Your task to perform on an android device: Open Chrome and go to the settings page Image 0: 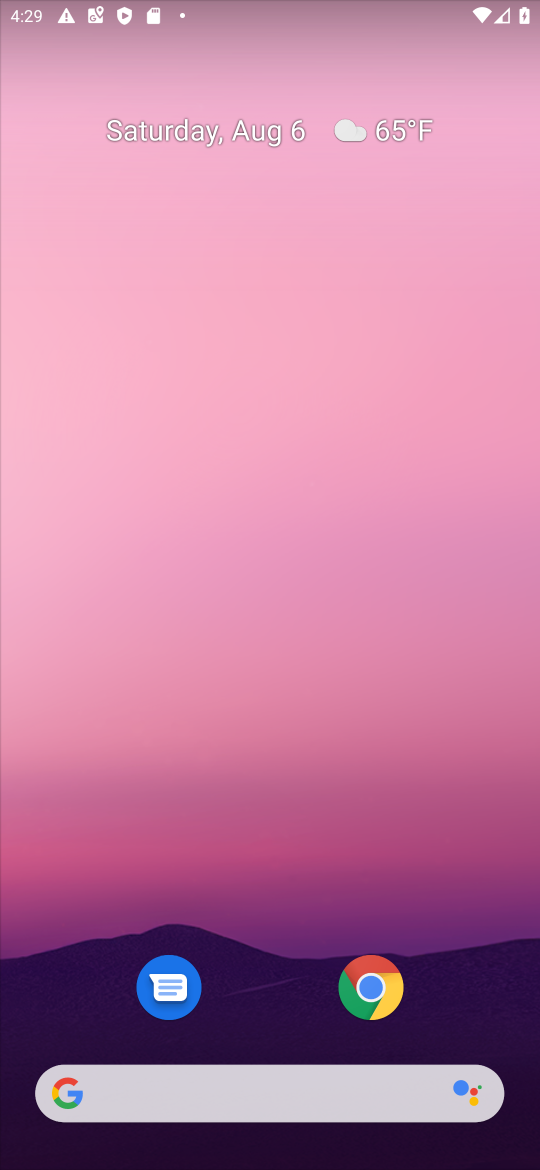
Step 0: click (360, 995)
Your task to perform on an android device: Open Chrome and go to the settings page Image 1: 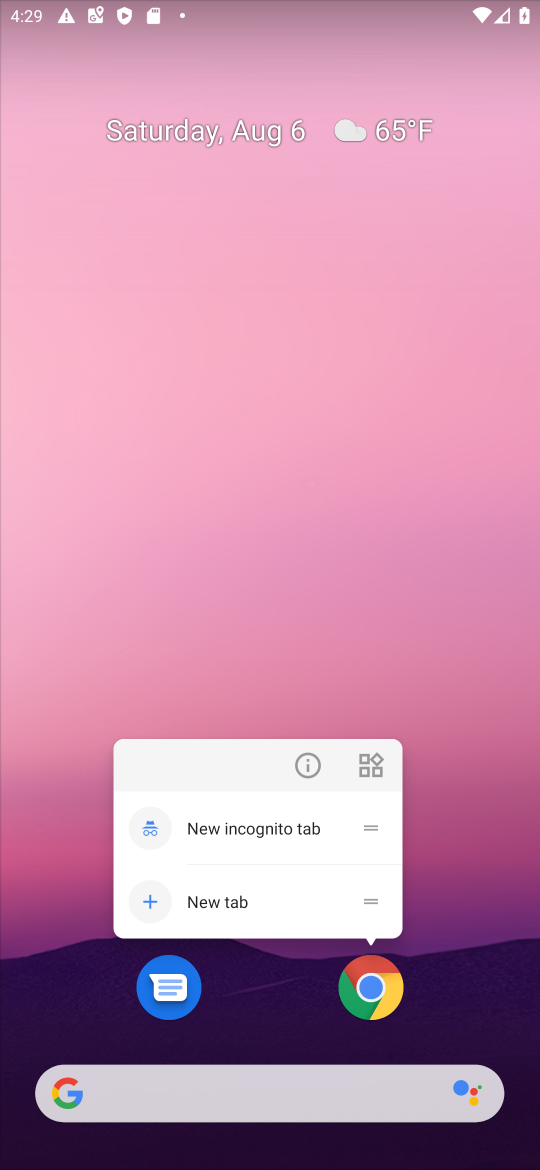
Step 1: click (376, 969)
Your task to perform on an android device: Open Chrome and go to the settings page Image 2: 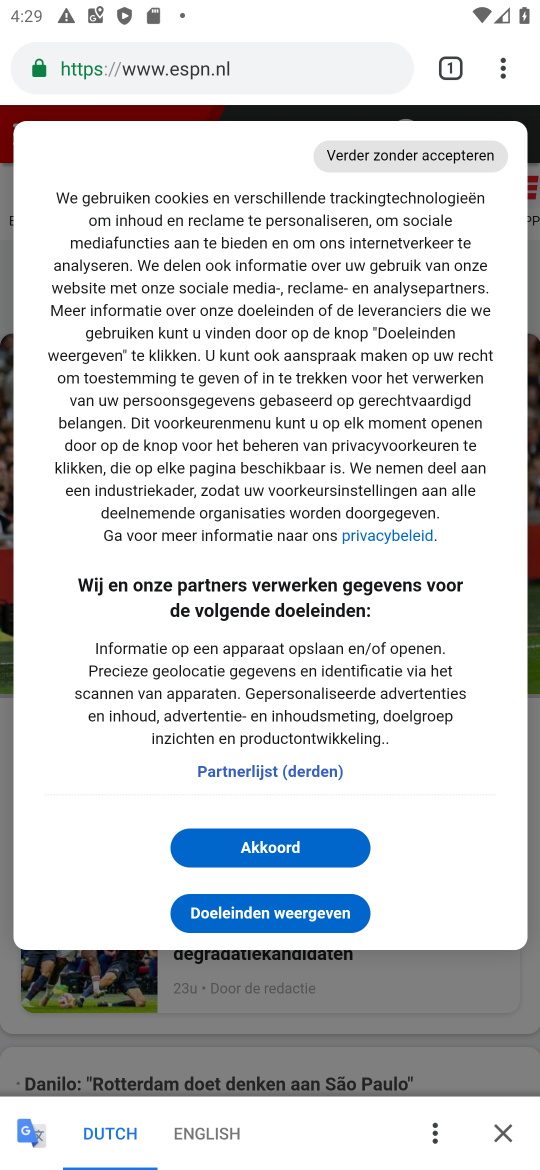
Step 2: click (503, 80)
Your task to perform on an android device: Open Chrome and go to the settings page Image 3: 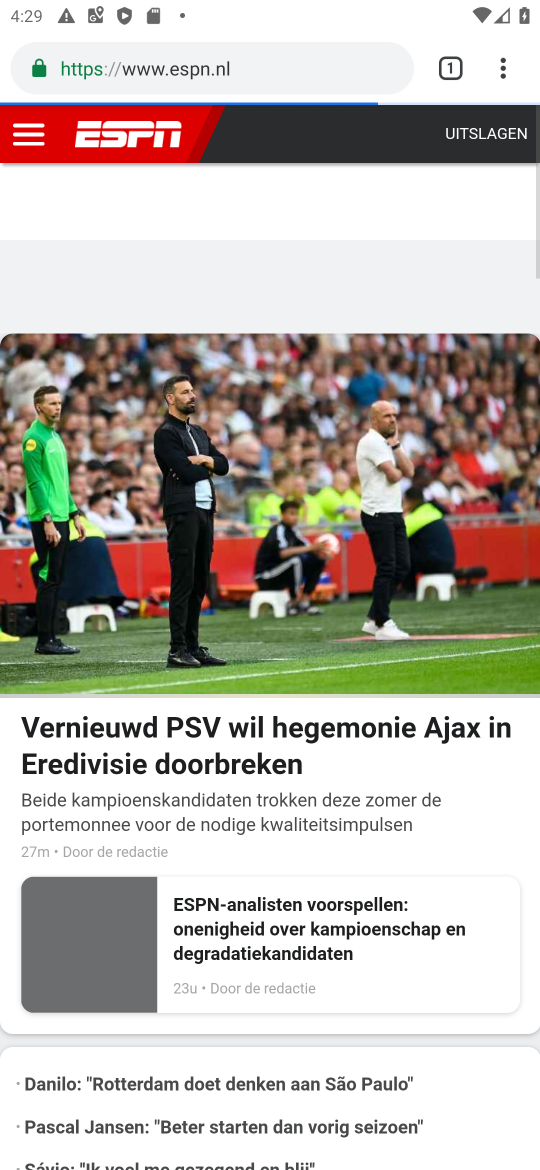
Step 3: click (503, 69)
Your task to perform on an android device: Open Chrome and go to the settings page Image 4: 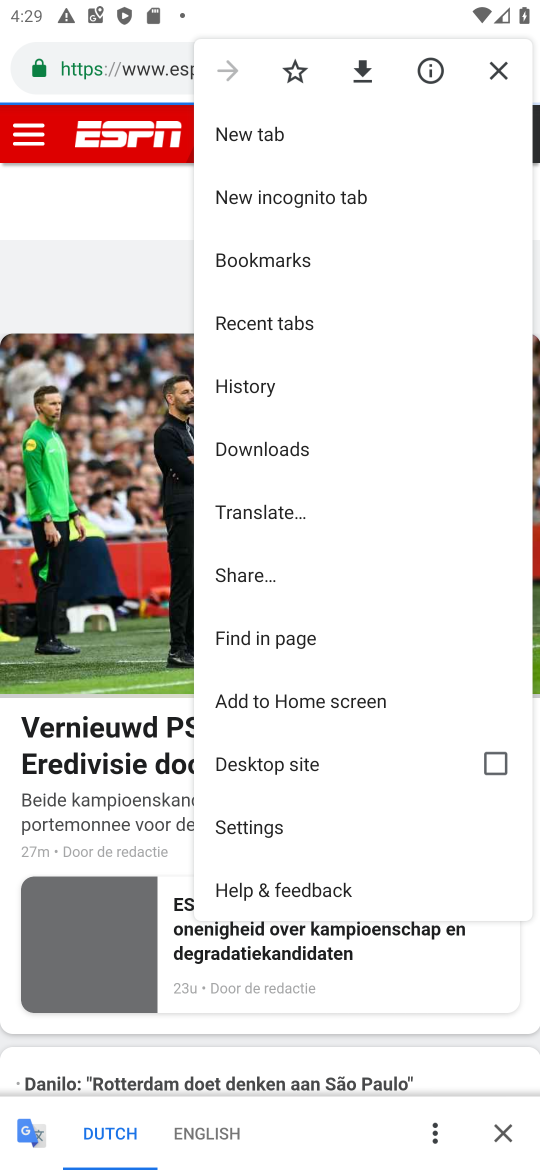
Step 4: click (272, 833)
Your task to perform on an android device: Open Chrome and go to the settings page Image 5: 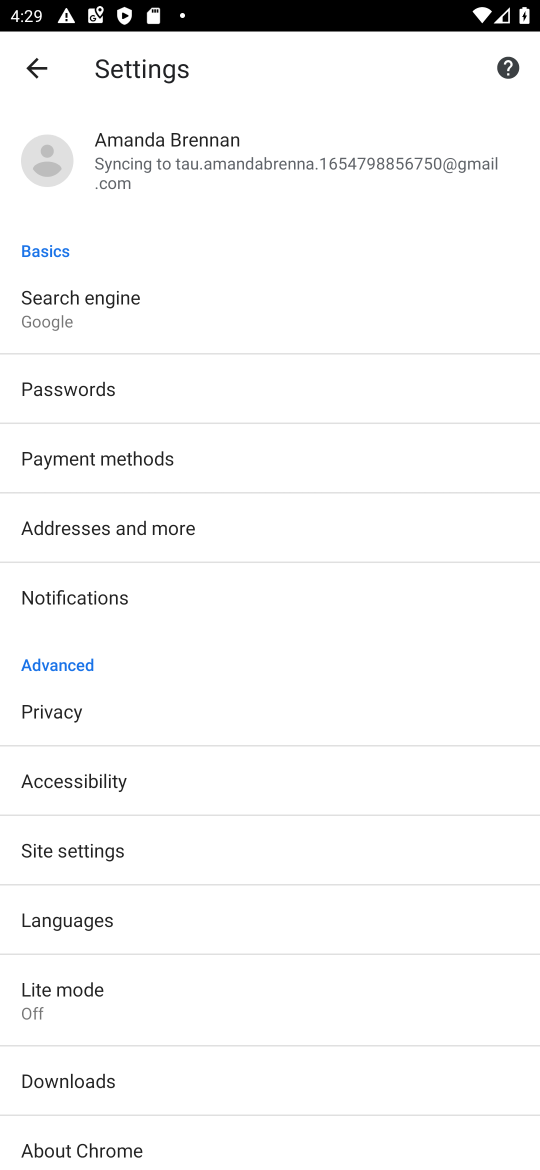
Step 5: task complete